Your task to perform on an android device: Go to sound settings Image 0: 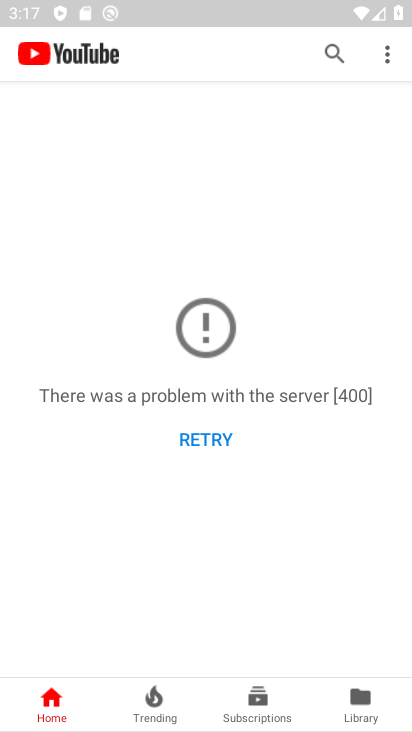
Step 0: press back button
Your task to perform on an android device: Go to sound settings Image 1: 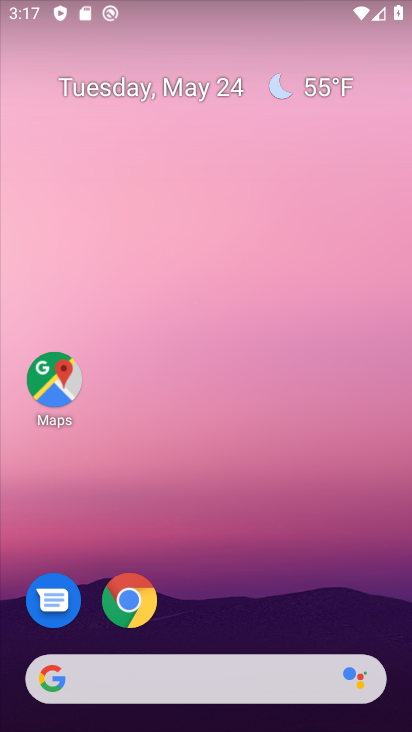
Step 1: drag from (209, 557) to (284, 70)
Your task to perform on an android device: Go to sound settings Image 2: 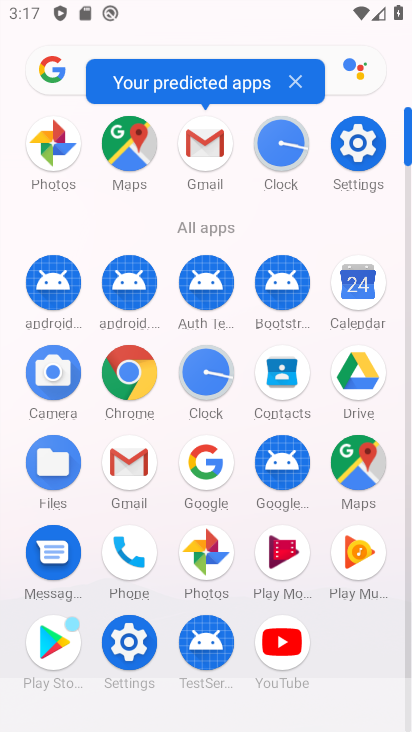
Step 2: click (374, 142)
Your task to perform on an android device: Go to sound settings Image 3: 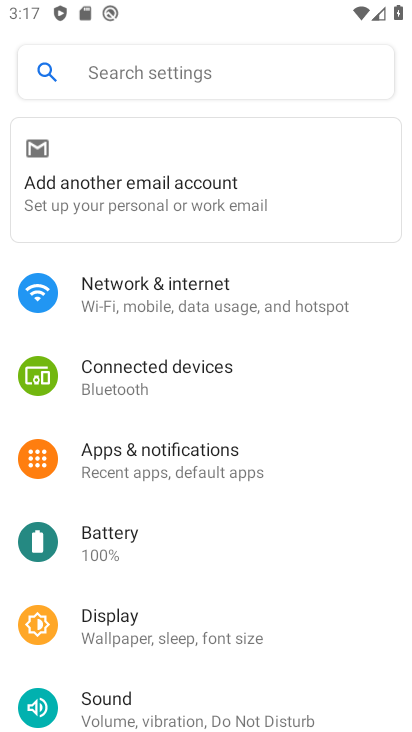
Step 3: click (124, 697)
Your task to perform on an android device: Go to sound settings Image 4: 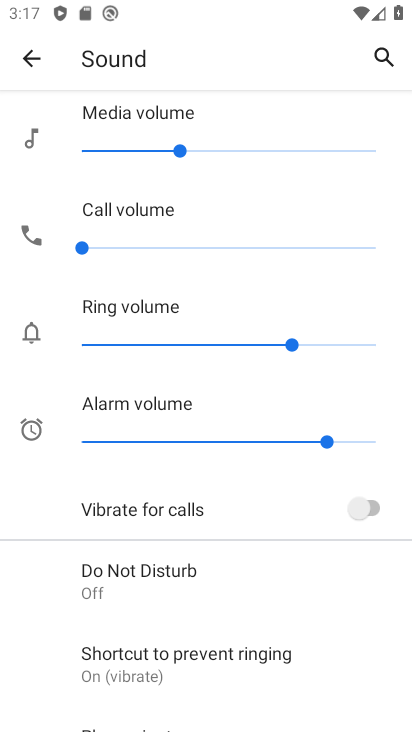
Step 4: task complete